Your task to perform on an android device: turn off sleep mode Image 0: 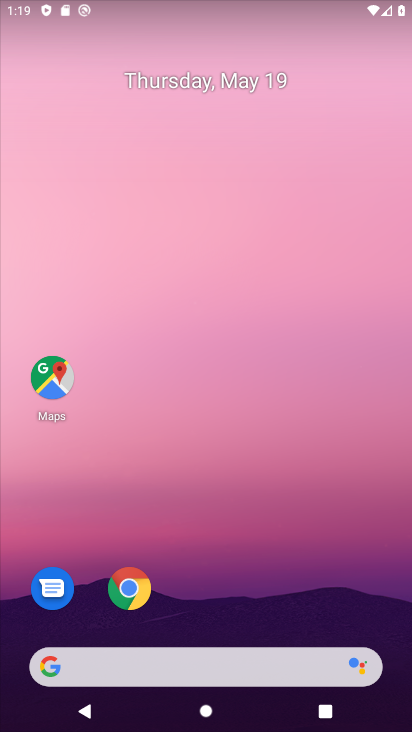
Step 0: drag from (301, 601) to (299, 177)
Your task to perform on an android device: turn off sleep mode Image 1: 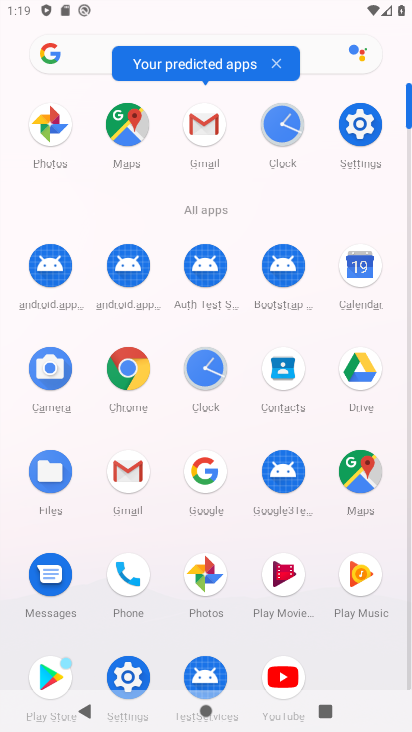
Step 1: click (356, 115)
Your task to perform on an android device: turn off sleep mode Image 2: 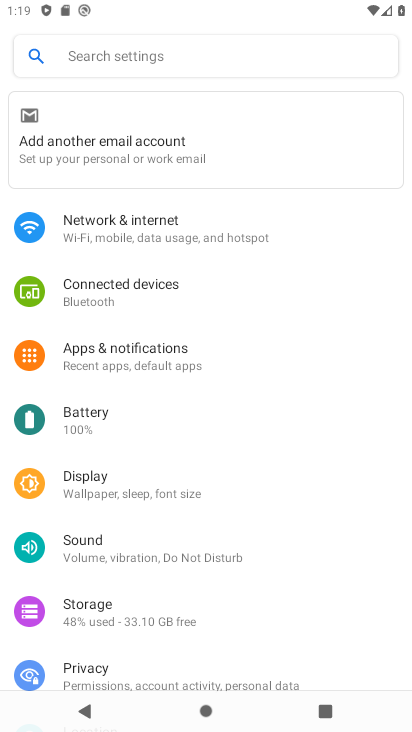
Step 2: drag from (217, 470) to (258, 224)
Your task to perform on an android device: turn off sleep mode Image 3: 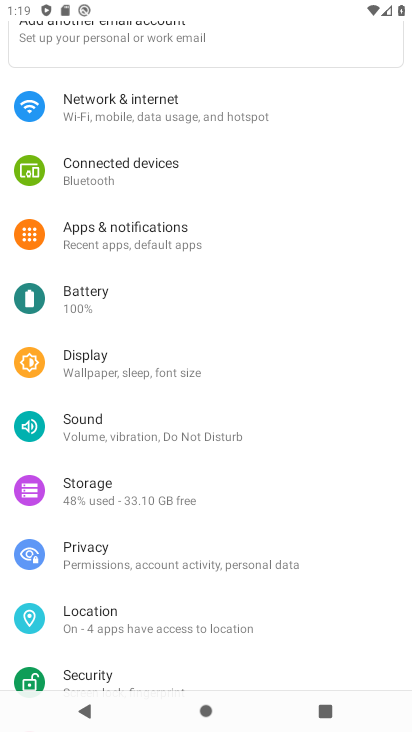
Step 3: click (129, 388)
Your task to perform on an android device: turn off sleep mode Image 4: 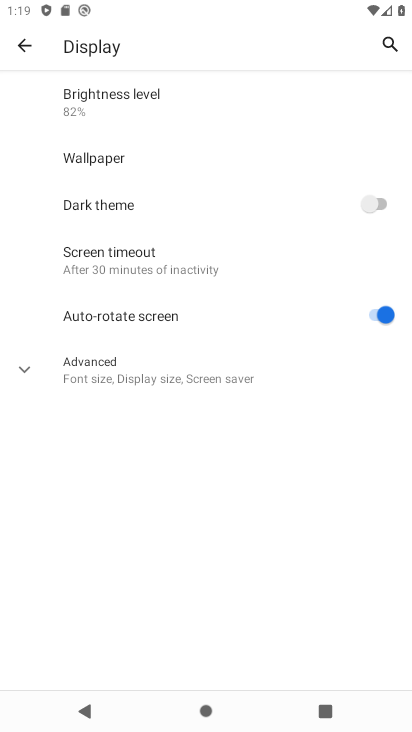
Step 4: click (270, 238)
Your task to perform on an android device: turn off sleep mode Image 5: 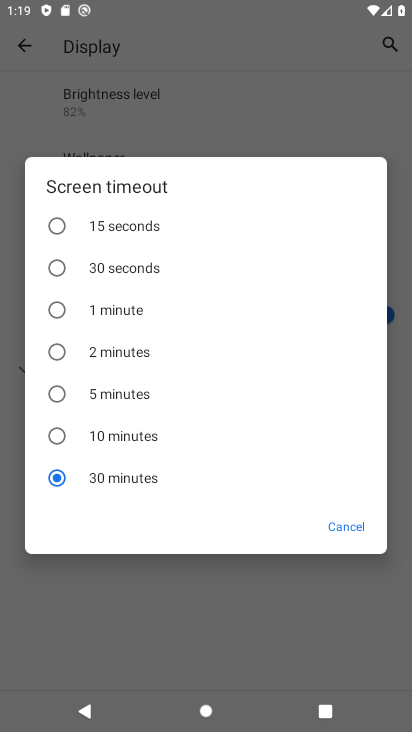
Step 5: task complete